Your task to perform on an android device: check battery use Image 0: 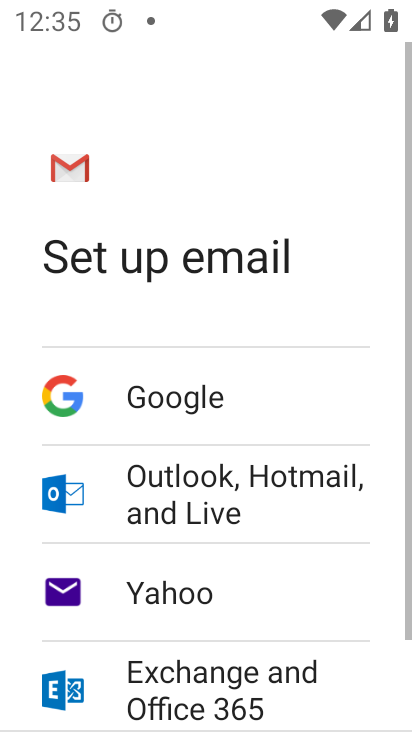
Step 0: press home button
Your task to perform on an android device: check battery use Image 1: 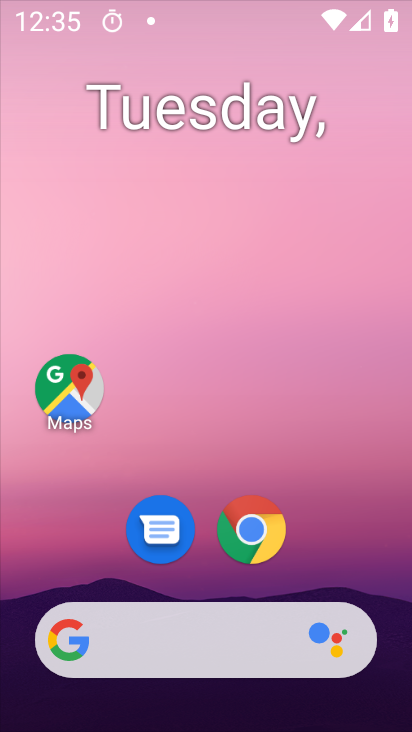
Step 1: drag from (358, 556) to (319, 9)
Your task to perform on an android device: check battery use Image 2: 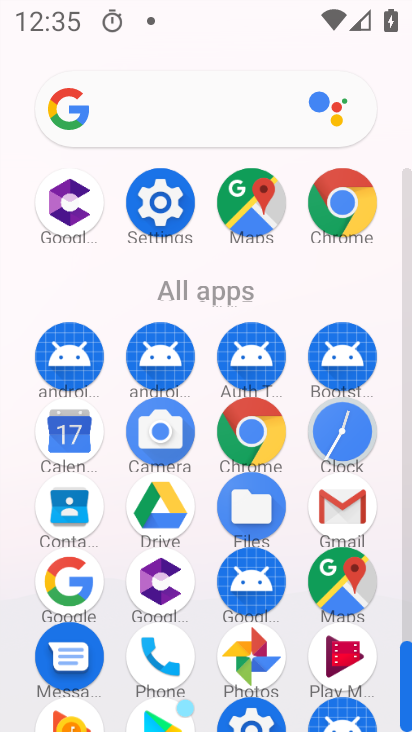
Step 2: click (163, 184)
Your task to perform on an android device: check battery use Image 3: 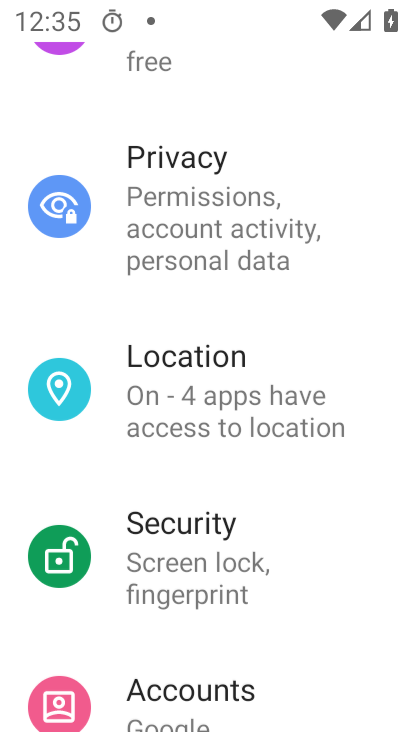
Step 3: drag from (218, 235) to (284, 594)
Your task to perform on an android device: check battery use Image 4: 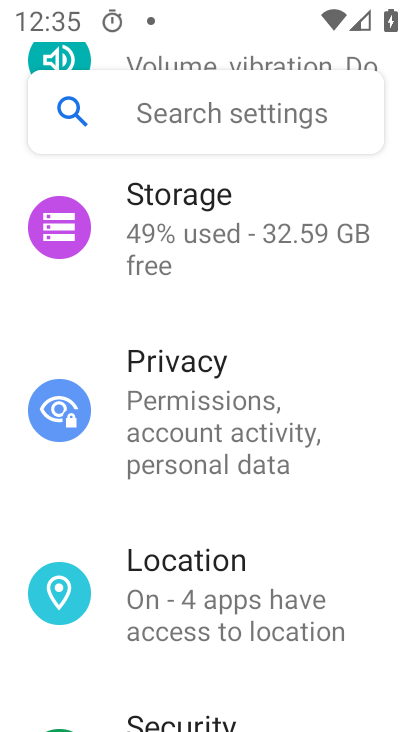
Step 4: drag from (229, 328) to (220, 639)
Your task to perform on an android device: check battery use Image 5: 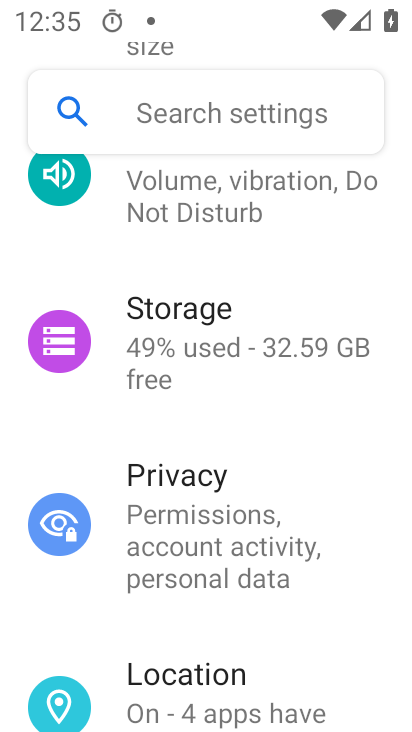
Step 5: drag from (273, 311) to (221, 691)
Your task to perform on an android device: check battery use Image 6: 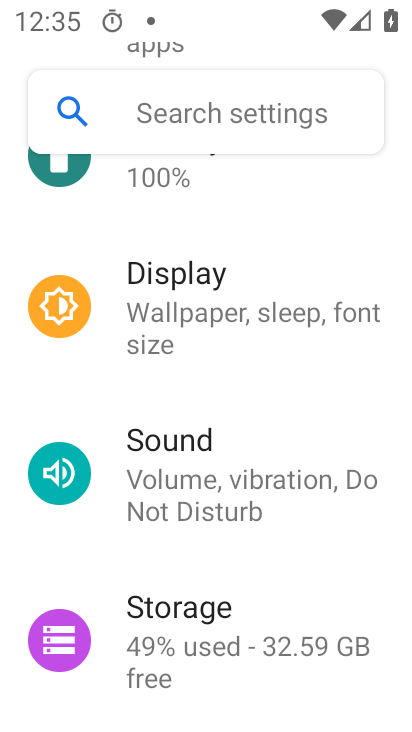
Step 6: drag from (268, 304) to (267, 572)
Your task to perform on an android device: check battery use Image 7: 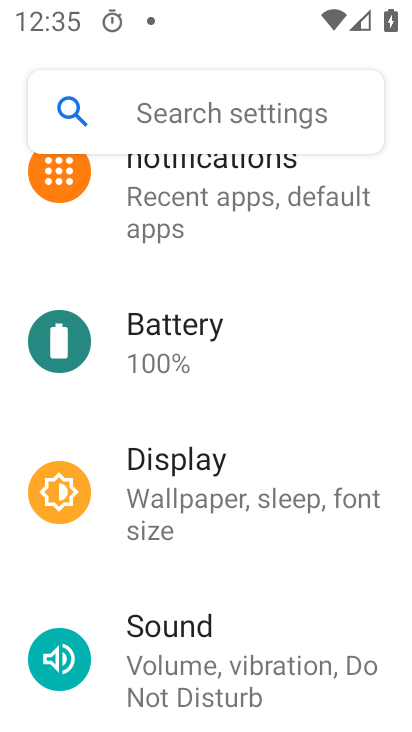
Step 7: click (233, 322)
Your task to perform on an android device: check battery use Image 8: 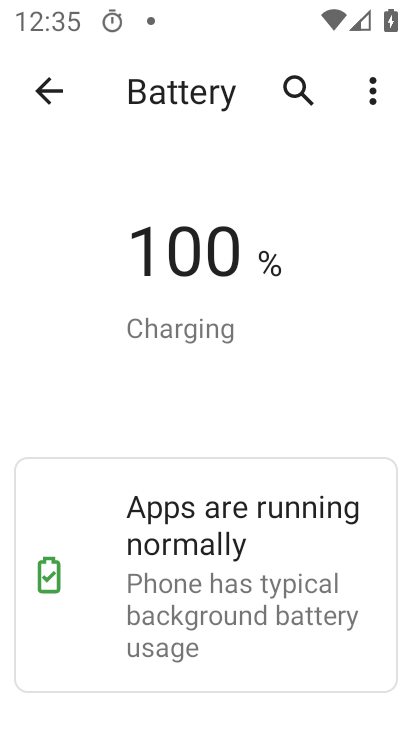
Step 8: task complete